Your task to perform on an android device: change the upload size in google photos Image 0: 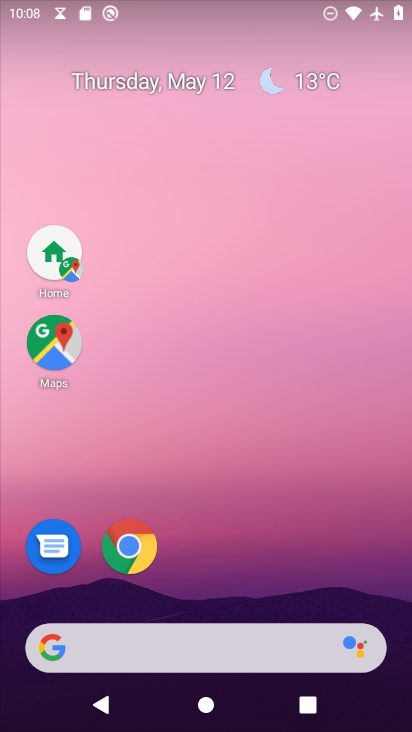
Step 0: drag from (147, 659) to (222, 241)
Your task to perform on an android device: change the upload size in google photos Image 1: 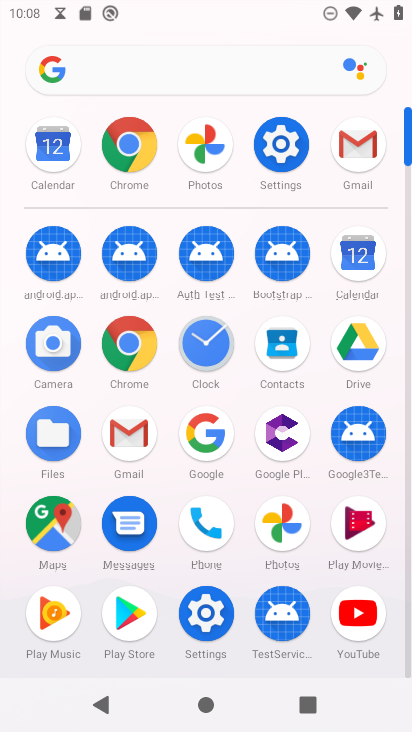
Step 1: click (281, 530)
Your task to perform on an android device: change the upload size in google photos Image 2: 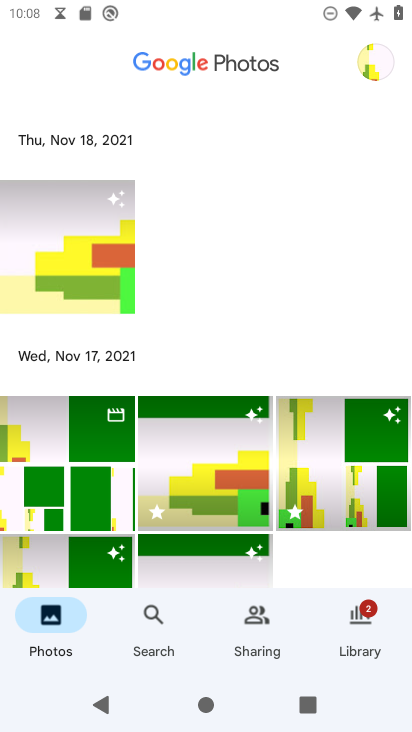
Step 2: click (376, 64)
Your task to perform on an android device: change the upload size in google photos Image 3: 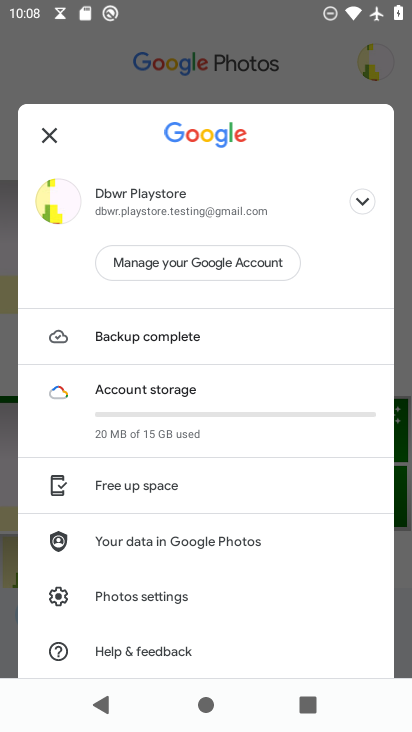
Step 3: click (150, 597)
Your task to perform on an android device: change the upload size in google photos Image 4: 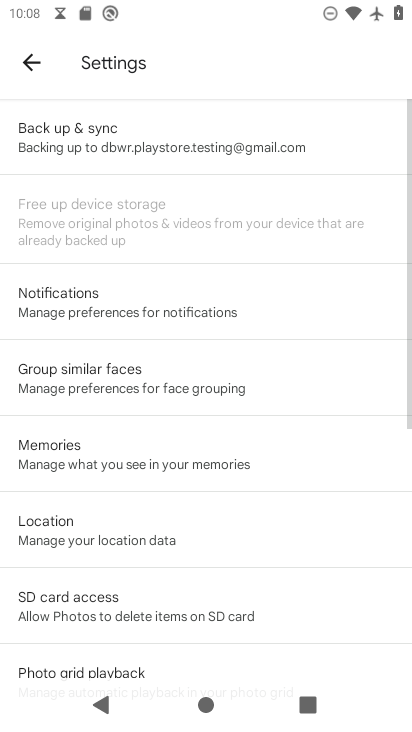
Step 4: click (185, 152)
Your task to perform on an android device: change the upload size in google photos Image 5: 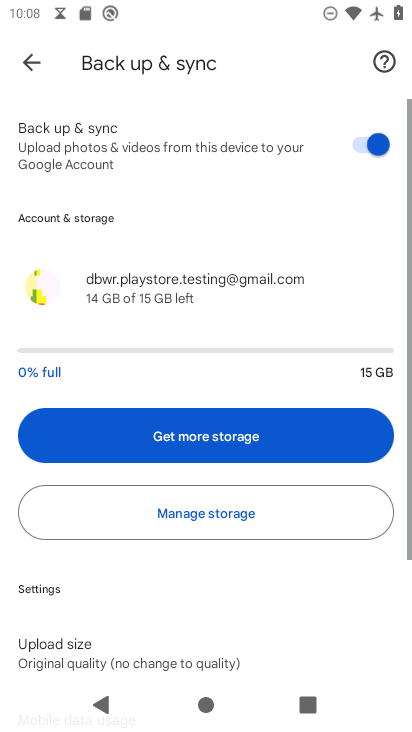
Step 5: drag from (218, 613) to (343, 176)
Your task to perform on an android device: change the upload size in google photos Image 6: 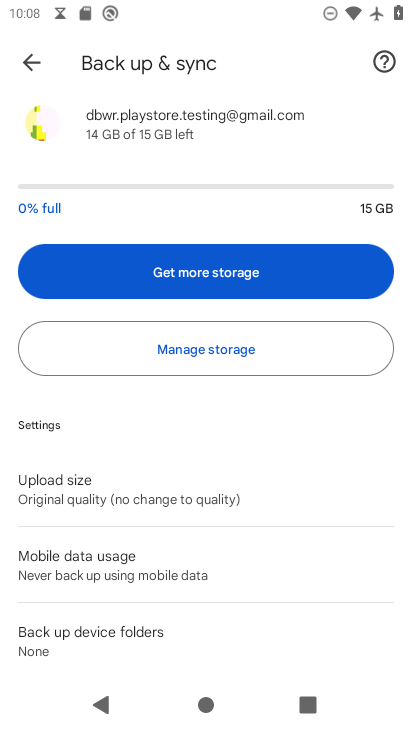
Step 6: click (172, 492)
Your task to perform on an android device: change the upload size in google photos Image 7: 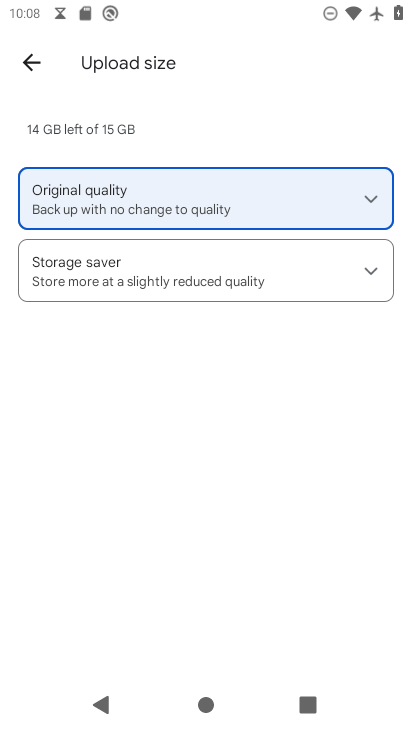
Step 7: click (374, 268)
Your task to perform on an android device: change the upload size in google photos Image 8: 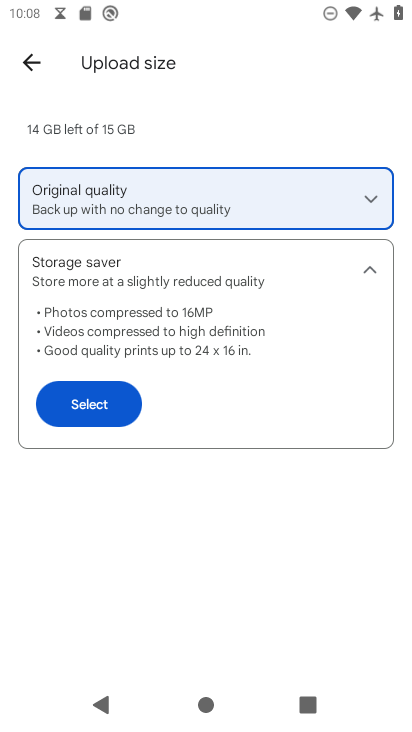
Step 8: click (87, 403)
Your task to perform on an android device: change the upload size in google photos Image 9: 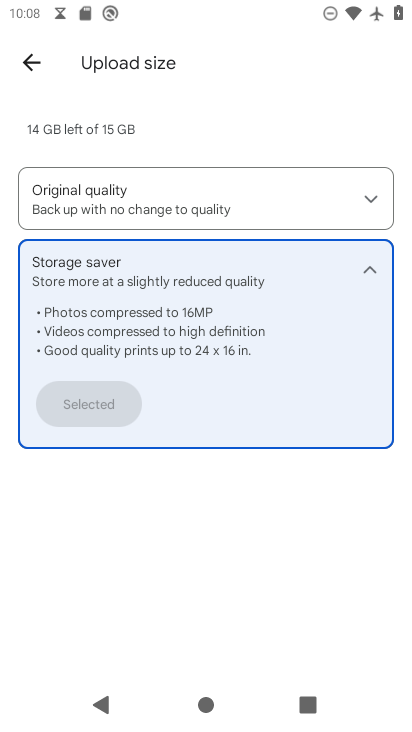
Step 9: task complete